Your task to perform on an android device: Open ESPN.com Image 0: 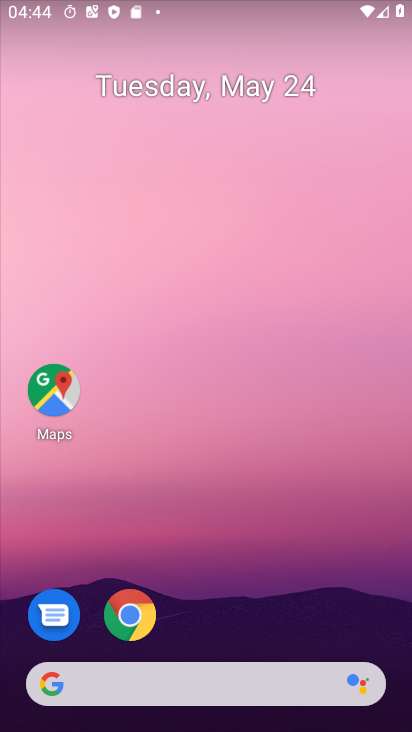
Step 0: click (130, 613)
Your task to perform on an android device: Open ESPN.com Image 1: 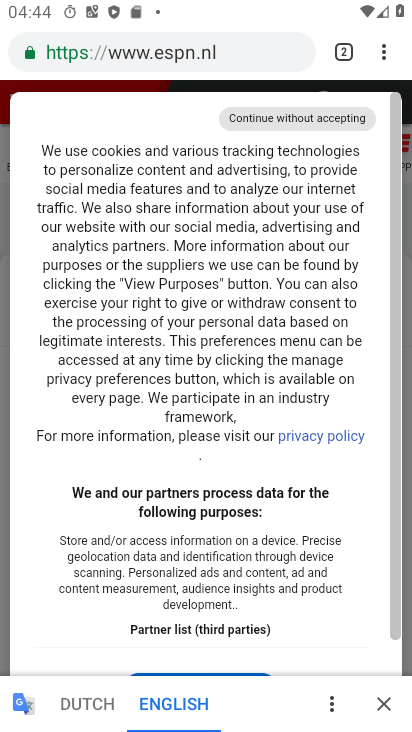
Step 1: task complete